Your task to perform on an android device: visit the assistant section in the google photos Image 0: 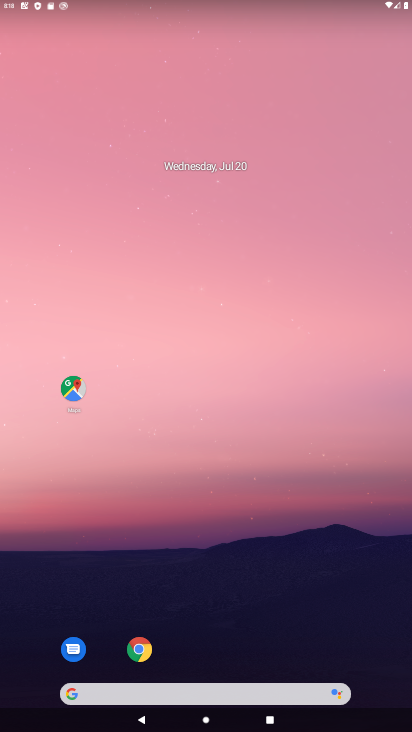
Step 0: drag from (267, 627) to (304, 56)
Your task to perform on an android device: visit the assistant section in the google photos Image 1: 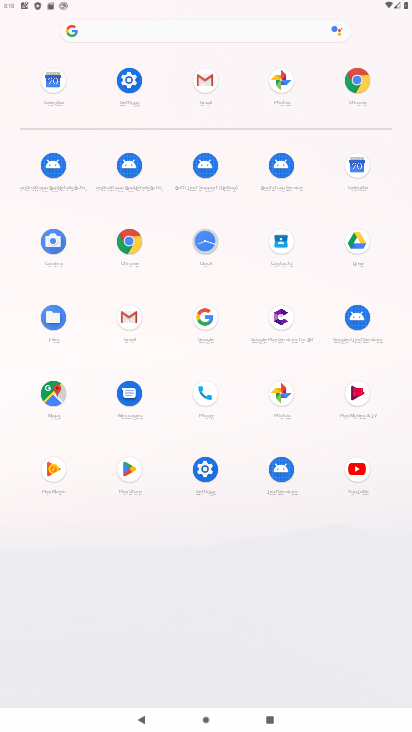
Step 1: click (269, 88)
Your task to perform on an android device: visit the assistant section in the google photos Image 2: 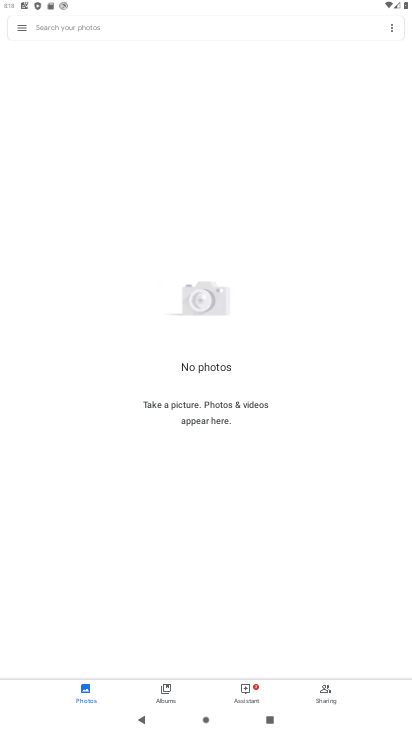
Step 2: click (254, 702)
Your task to perform on an android device: visit the assistant section in the google photos Image 3: 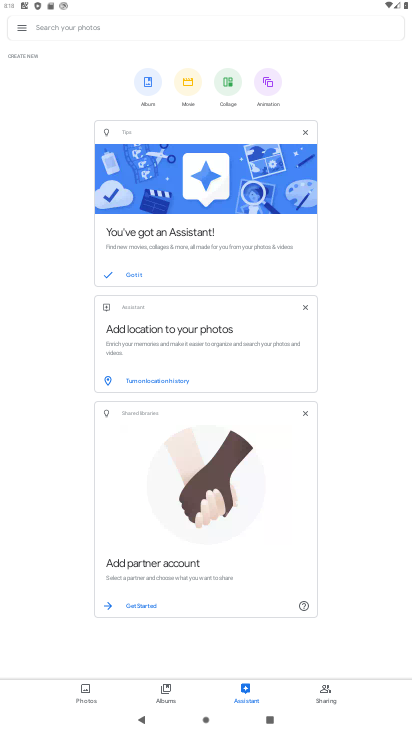
Step 3: task complete